Your task to perform on an android device: What is the recent news? Image 0: 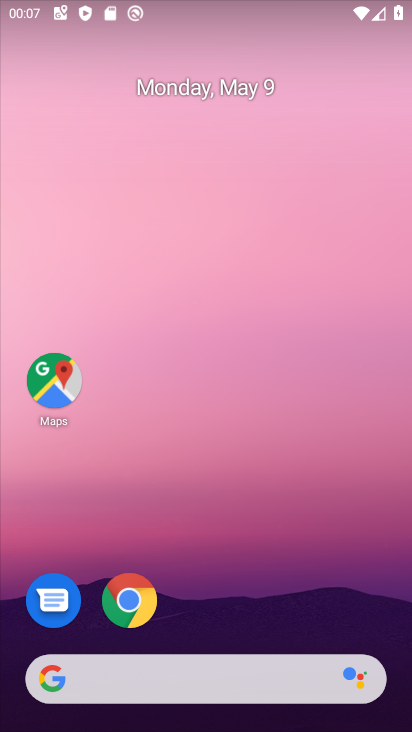
Step 0: click (216, 674)
Your task to perform on an android device: What is the recent news? Image 1: 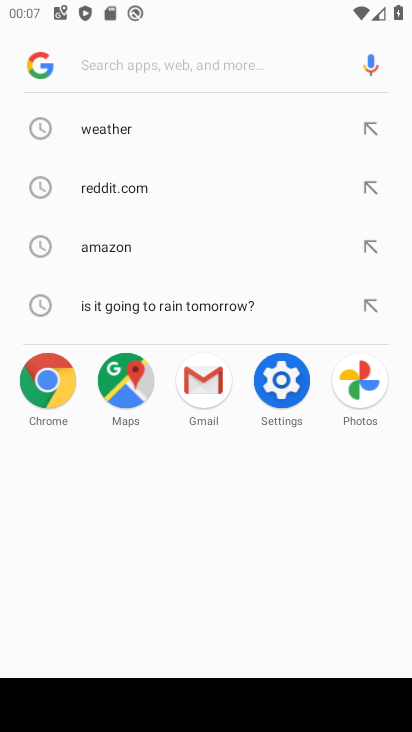
Step 1: click (158, 71)
Your task to perform on an android device: What is the recent news? Image 2: 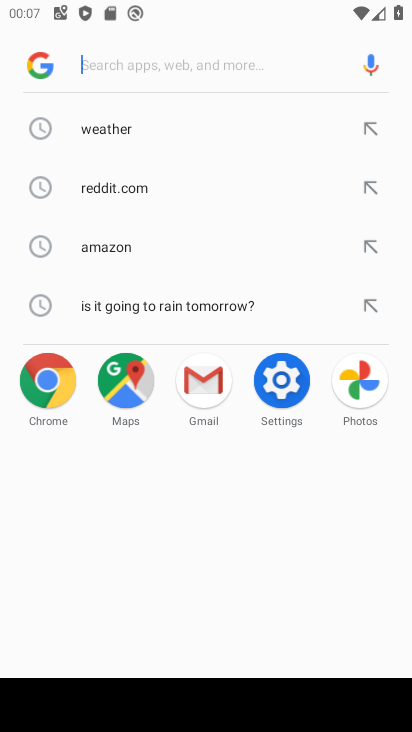
Step 2: type "recent news"
Your task to perform on an android device: What is the recent news? Image 3: 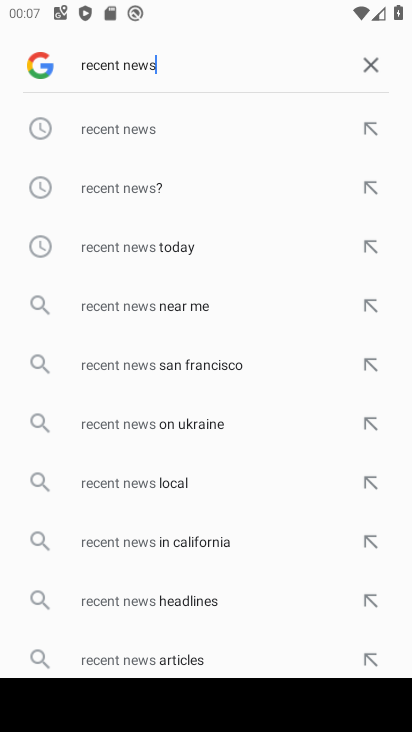
Step 3: click (195, 135)
Your task to perform on an android device: What is the recent news? Image 4: 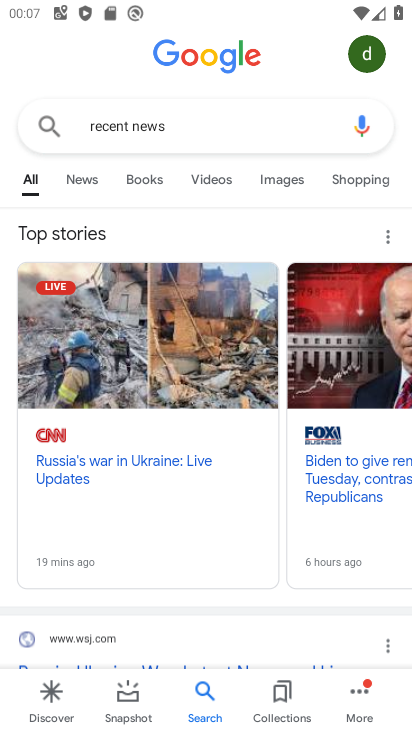
Step 4: task complete